Your task to perform on an android device: Go to CNN.com Image 0: 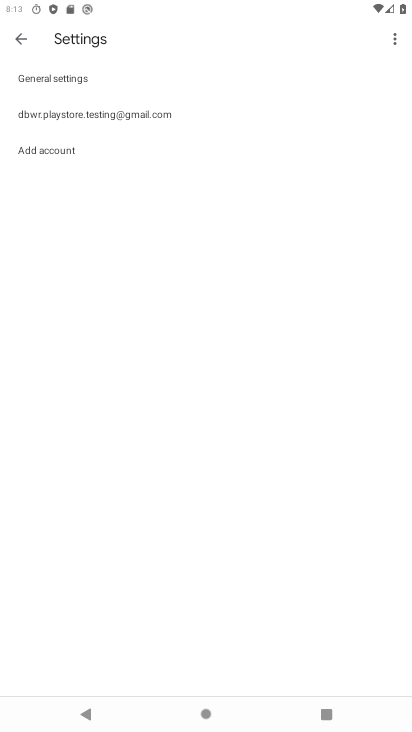
Step 0: press home button
Your task to perform on an android device: Go to CNN.com Image 1: 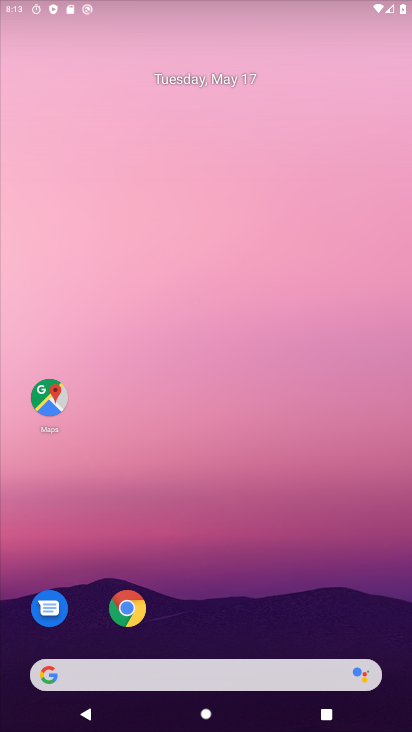
Step 1: drag from (366, 604) to (301, 66)
Your task to perform on an android device: Go to CNN.com Image 2: 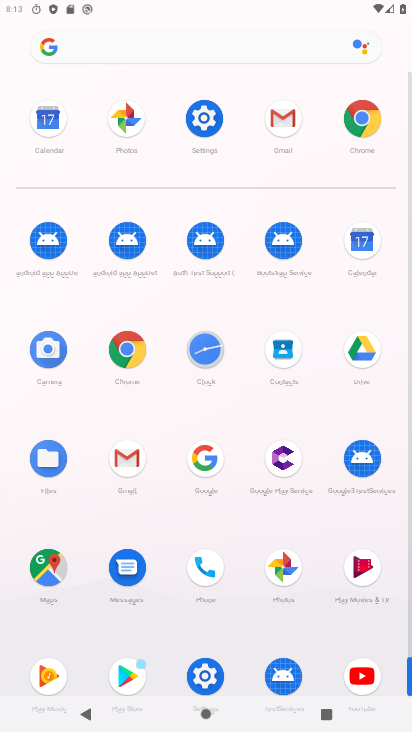
Step 2: click (128, 355)
Your task to perform on an android device: Go to CNN.com Image 3: 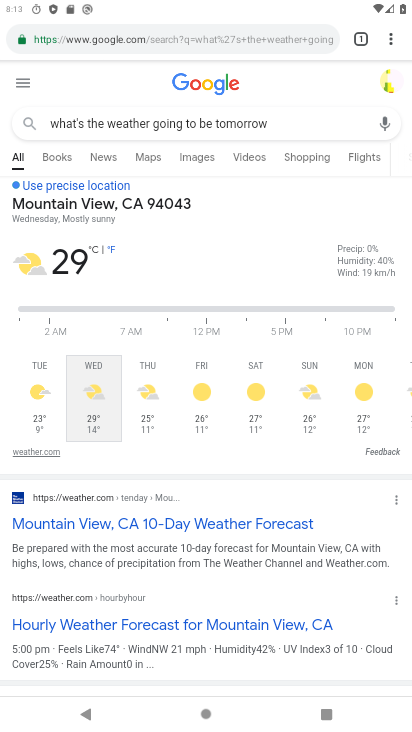
Step 3: click (237, 86)
Your task to perform on an android device: Go to CNN.com Image 4: 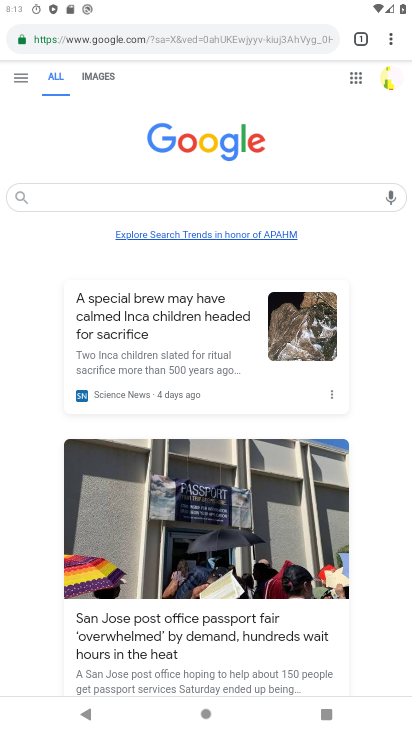
Step 4: click (176, 197)
Your task to perform on an android device: Go to CNN.com Image 5: 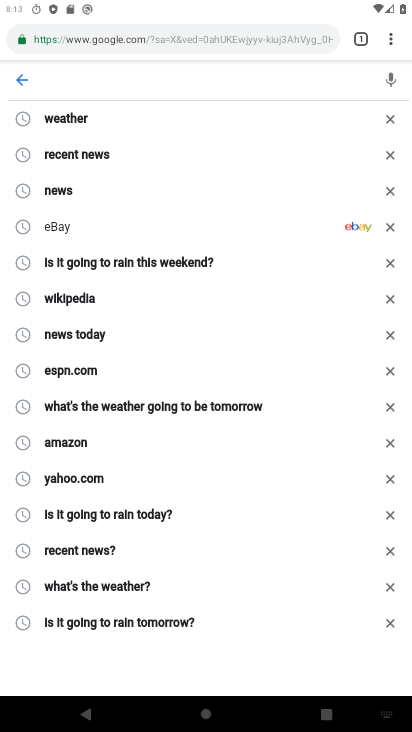
Step 5: type "cnn.com"
Your task to perform on an android device: Go to CNN.com Image 6: 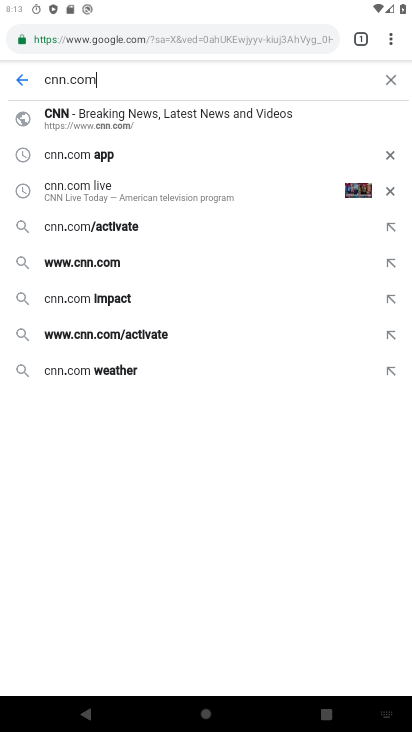
Step 6: click (81, 259)
Your task to perform on an android device: Go to CNN.com Image 7: 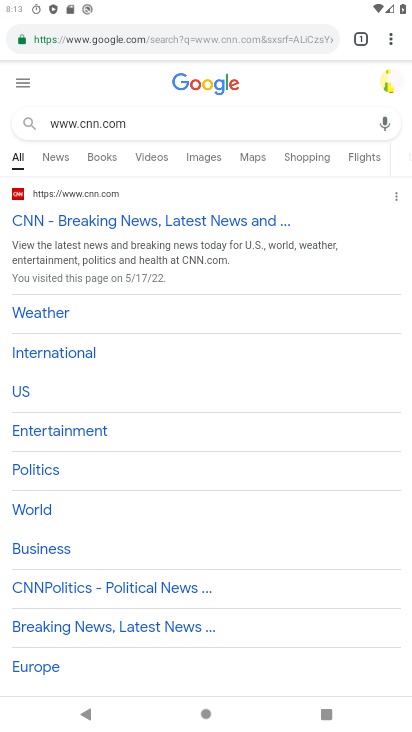
Step 7: click (73, 220)
Your task to perform on an android device: Go to CNN.com Image 8: 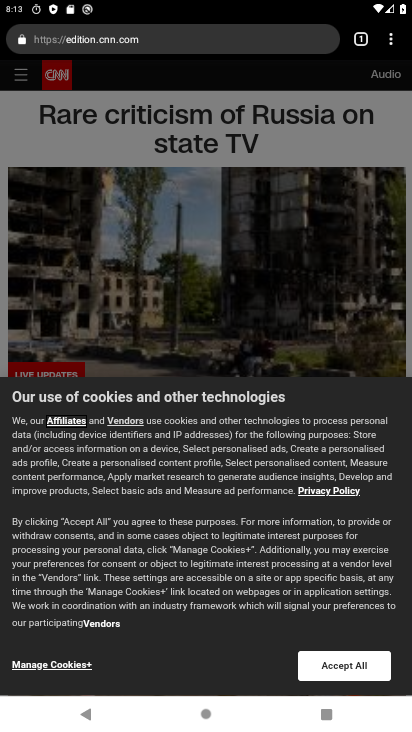
Step 8: click (372, 668)
Your task to perform on an android device: Go to CNN.com Image 9: 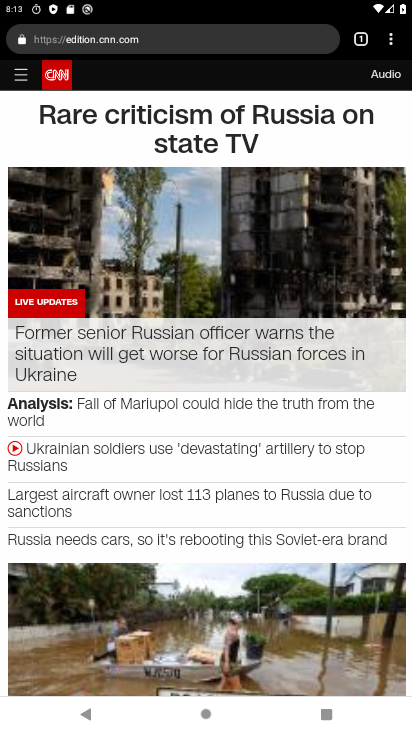
Step 9: task complete